Your task to perform on an android device: Open Reddit.com Image 0: 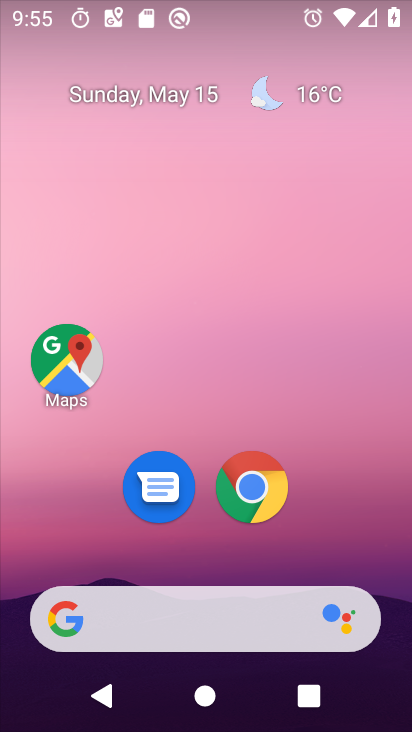
Step 0: drag from (356, 539) to (339, 117)
Your task to perform on an android device: Open Reddit.com Image 1: 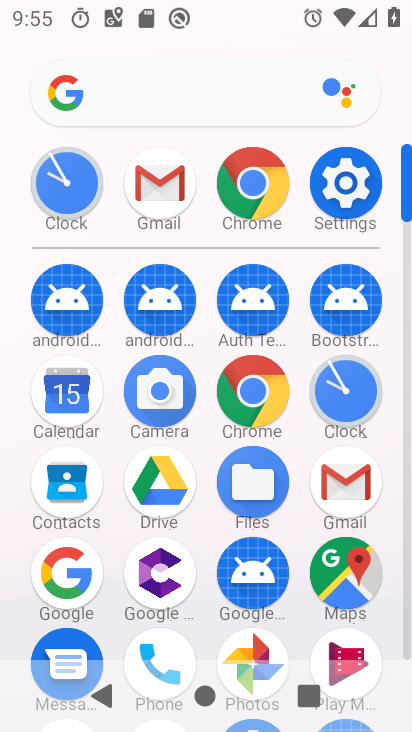
Step 1: click (252, 379)
Your task to perform on an android device: Open Reddit.com Image 2: 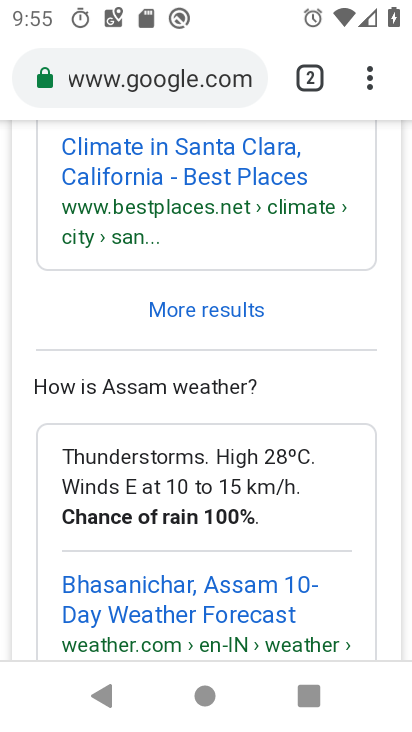
Step 2: click (150, 91)
Your task to perform on an android device: Open Reddit.com Image 3: 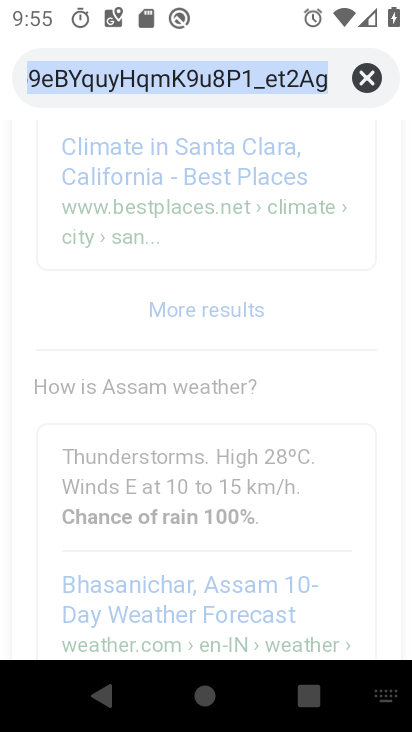
Step 3: click (368, 72)
Your task to perform on an android device: Open Reddit.com Image 4: 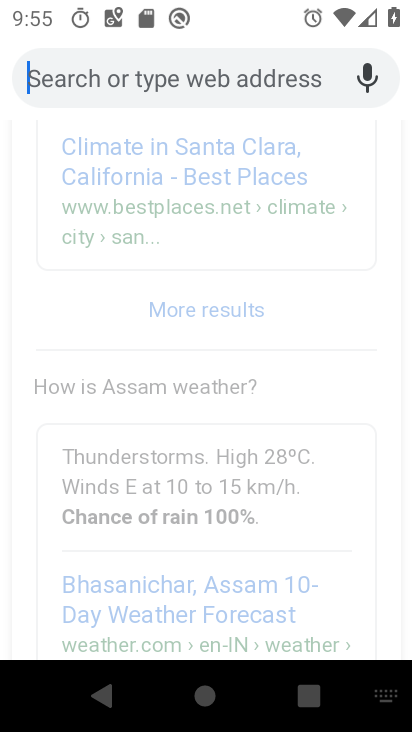
Step 4: type "reddit.com"
Your task to perform on an android device: Open Reddit.com Image 5: 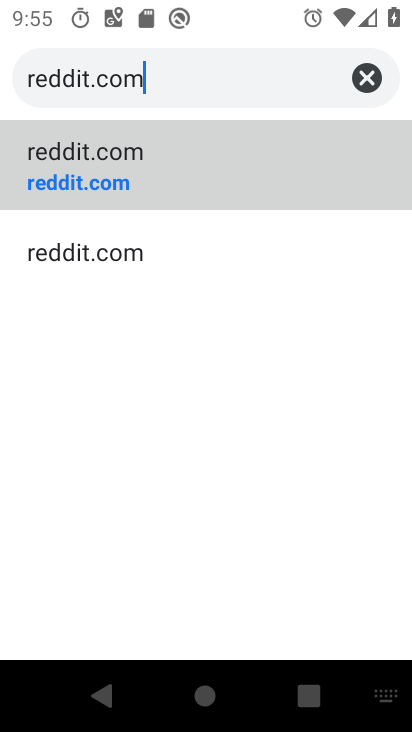
Step 5: click (97, 167)
Your task to perform on an android device: Open Reddit.com Image 6: 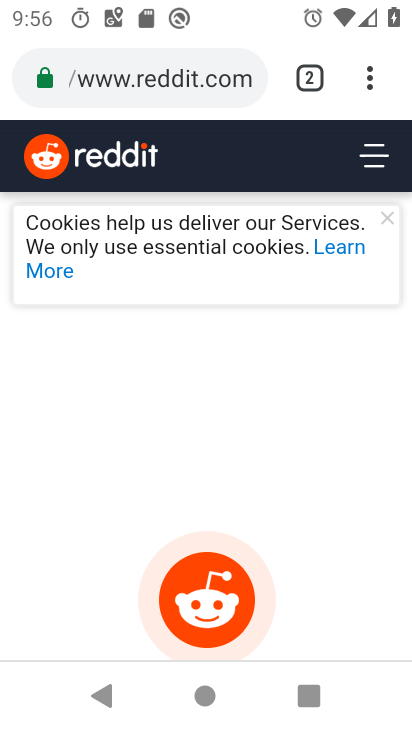
Step 6: task complete